Your task to perform on an android device: snooze an email in the gmail app Image 0: 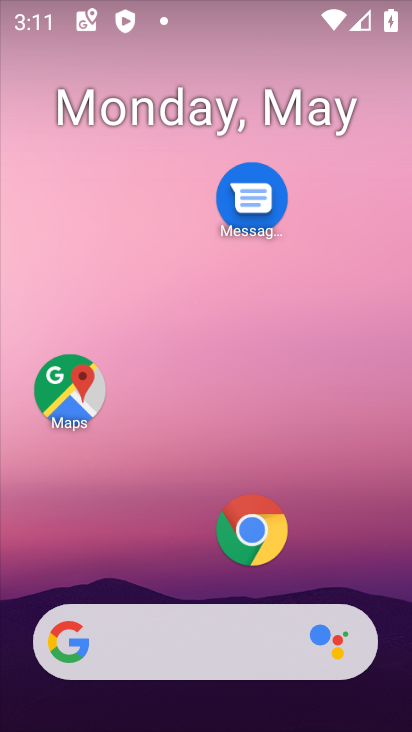
Step 0: drag from (147, 565) to (224, 11)
Your task to perform on an android device: snooze an email in the gmail app Image 1: 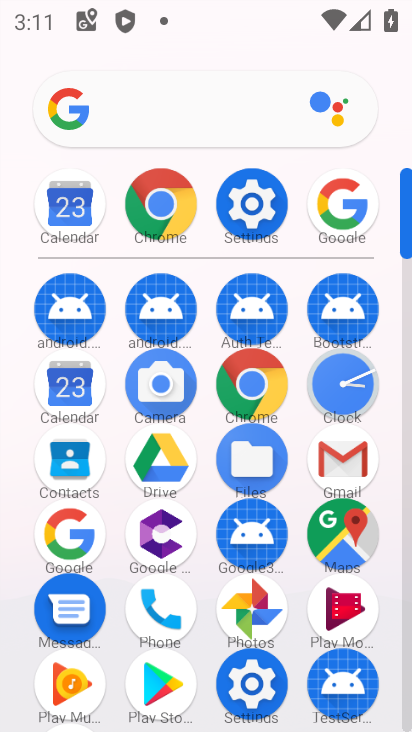
Step 1: click (349, 472)
Your task to perform on an android device: snooze an email in the gmail app Image 2: 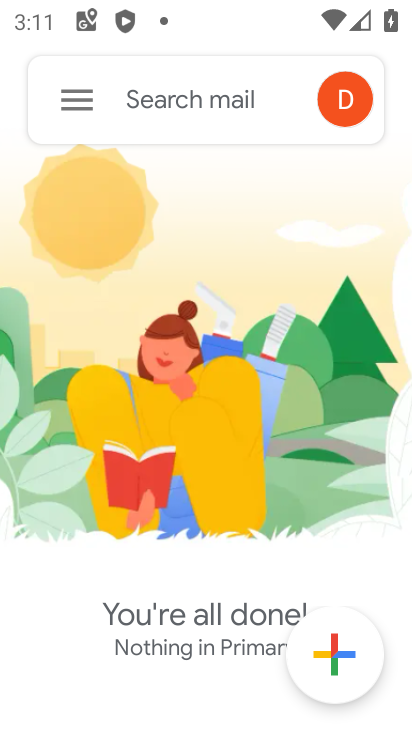
Step 2: click (58, 100)
Your task to perform on an android device: snooze an email in the gmail app Image 3: 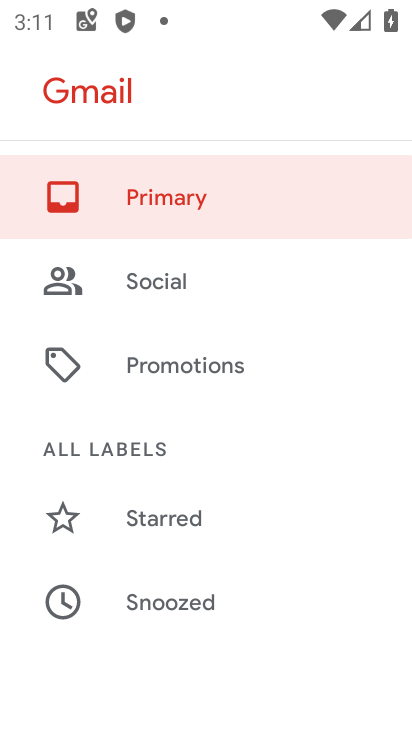
Step 3: drag from (212, 644) to (162, 275)
Your task to perform on an android device: snooze an email in the gmail app Image 4: 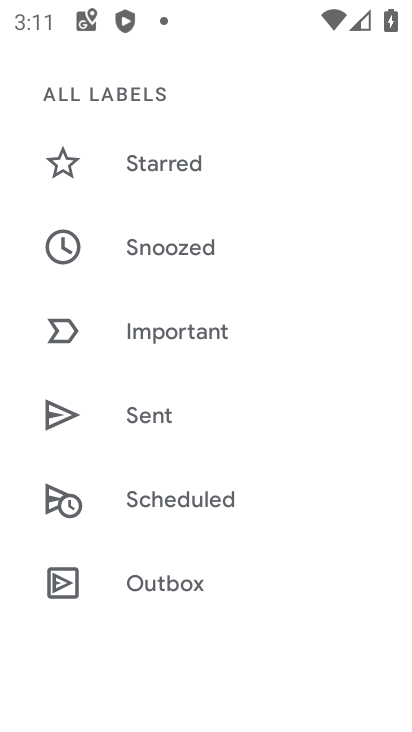
Step 4: drag from (304, 338) to (347, 65)
Your task to perform on an android device: snooze an email in the gmail app Image 5: 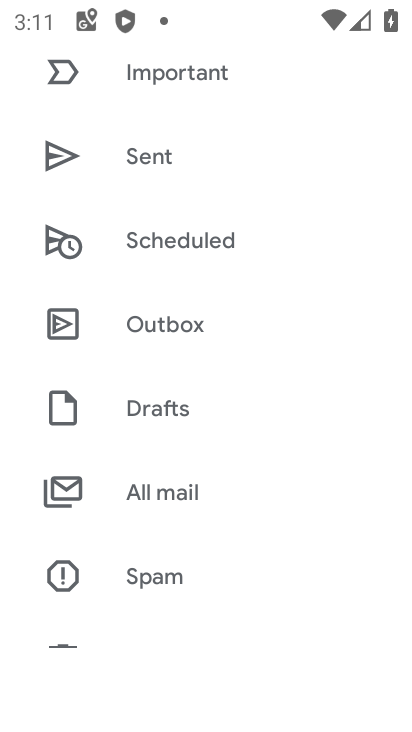
Step 5: click (180, 484)
Your task to perform on an android device: snooze an email in the gmail app Image 6: 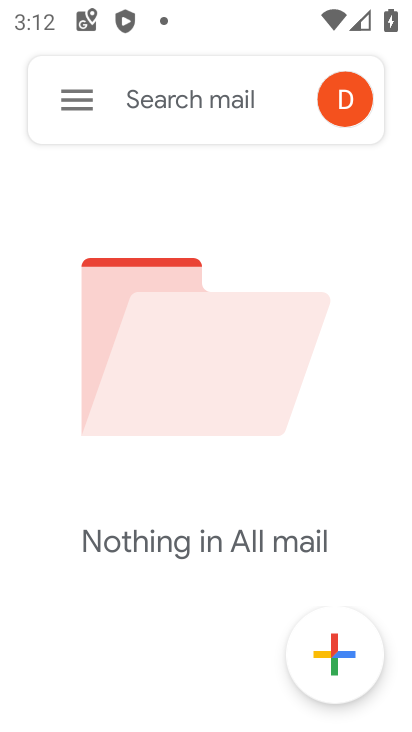
Step 6: task complete